Your task to perform on an android device: turn off airplane mode Image 0: 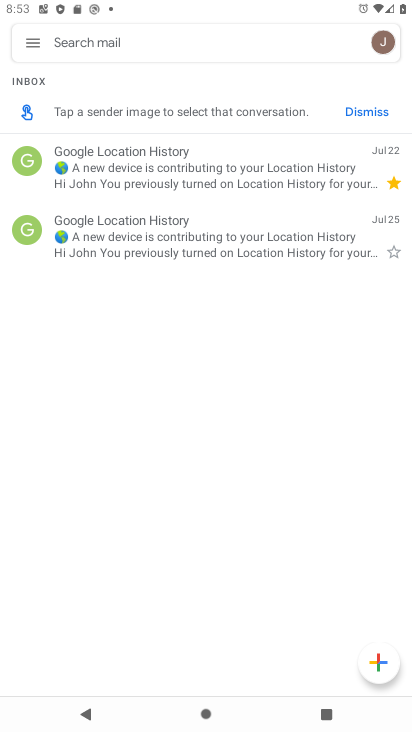
Step 0: press home button
Your task to perform on an android device: turn off airplane mode Image 1: 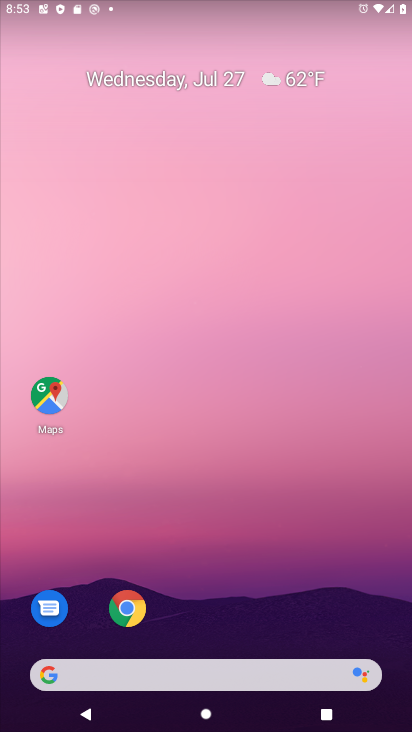
Step 1: task complete